Your task to perform on an android device: set an alarm Image 0: 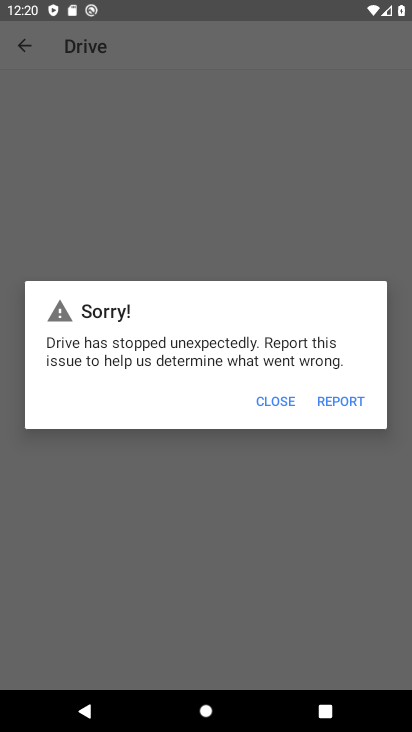
Step 0: press home button
Your task to perform on an android device: set an alarm Image 1: 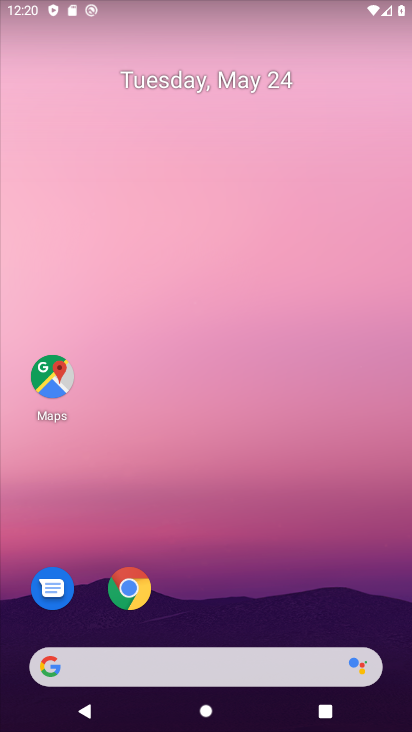
Step 1: drag from (182, 555) to (300, 4)
Your task to perform on an android device: set an alarm Image 2: 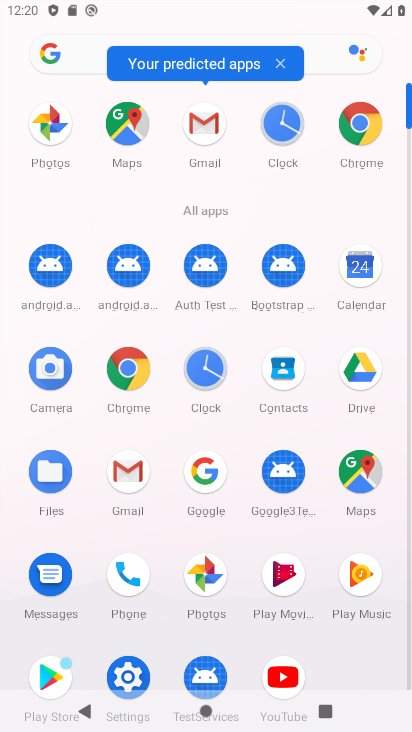
Step 2: click (203, 373)
Your task to perform on an android device: set an alarm Image 3: 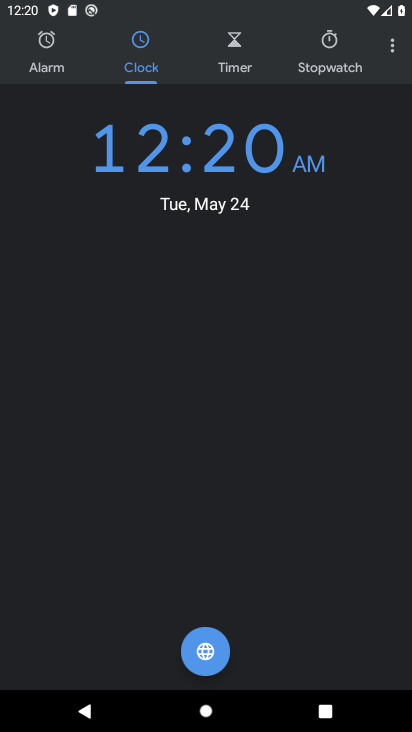
Step 3: click (51, 57)
Your task to perform on an android device: set an alarm Image 4: 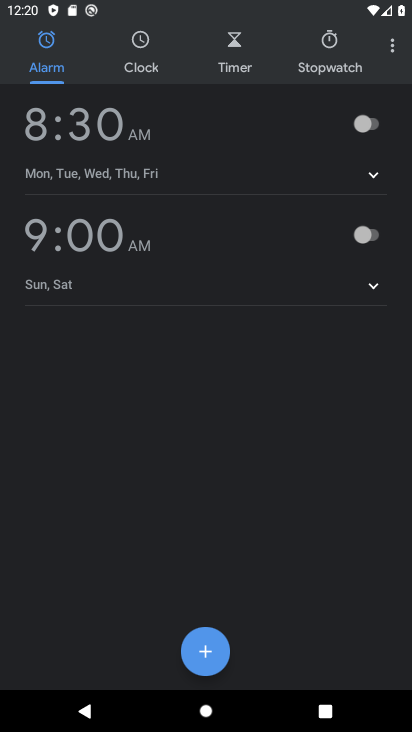
Step 4: click (376, 117)
Your task to perform on an android device: set an alarm Image 5: 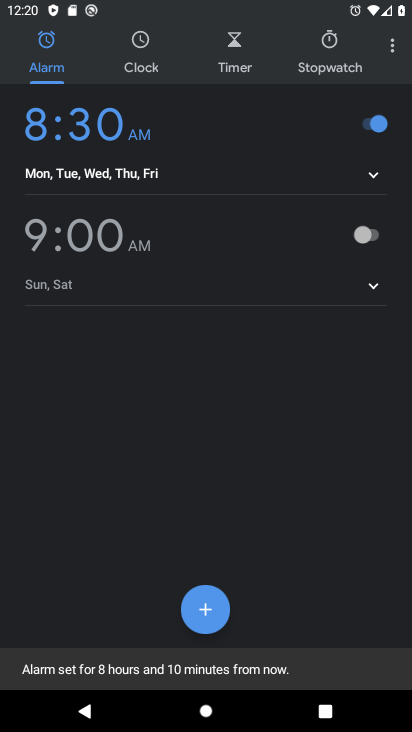
Step 5: task complete